Your task to perform on an android device: turn off notifications in google photos Image 0: 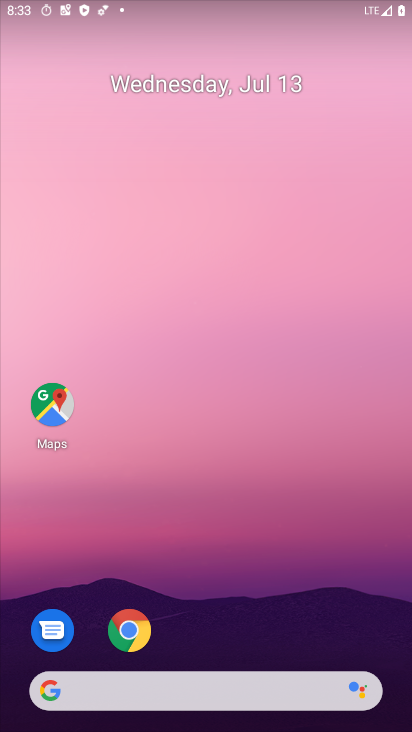
Step 0: drag from (381, 590) to (356, 183)
Your task to perform on an android device: turn off notifications in google photos Image 1: 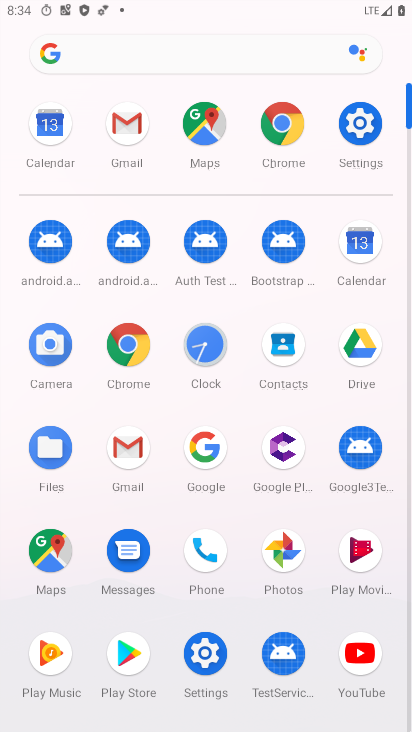
Step 1: click (300, 549)
Your task to perform on an android device: turn off notifications in google photos Image 2: 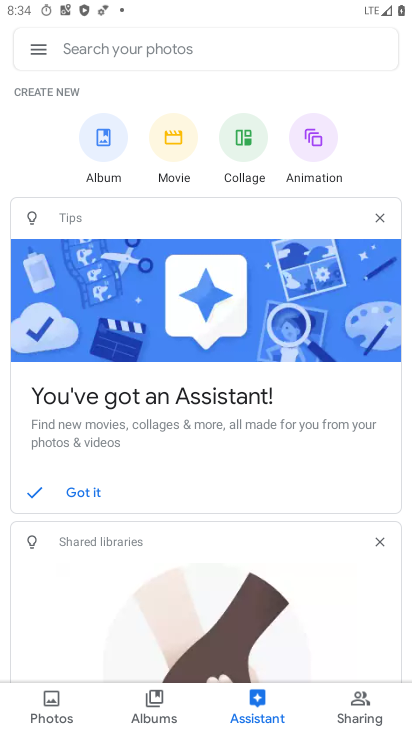
Step 2: click (35, 44)
Your task to perform on an android device: turn off notifications in google photos Image 3: 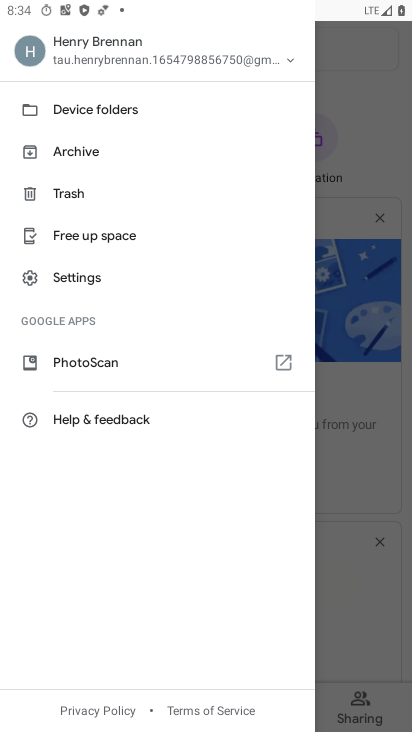
Step 3: click (100, 274)
Your task to perform on an android device: turn off notifications in google photos Image 4: 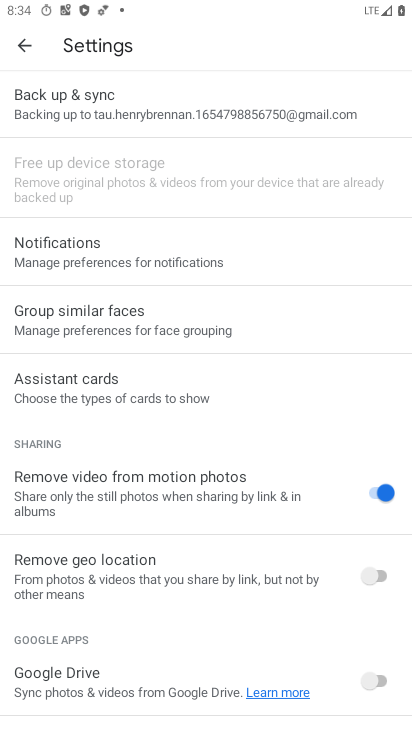
Step 4: click (200, 251)
Your task to perform on an android device: turn off notifications in google photos Image 5: 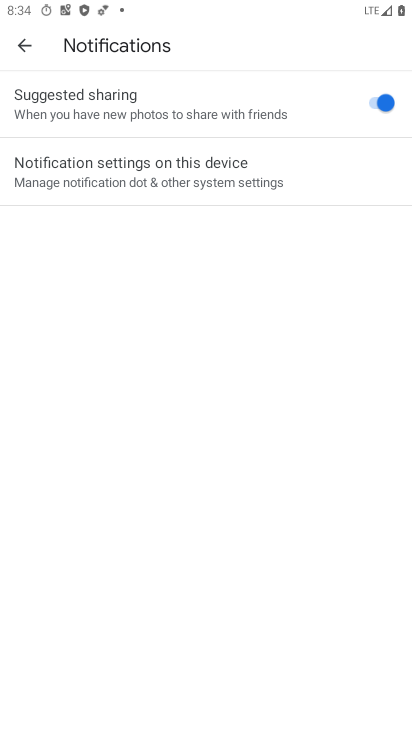
Step 5: click (383, 102)
Your task to perform on an android device: turn off notifications in google photos Image 6: 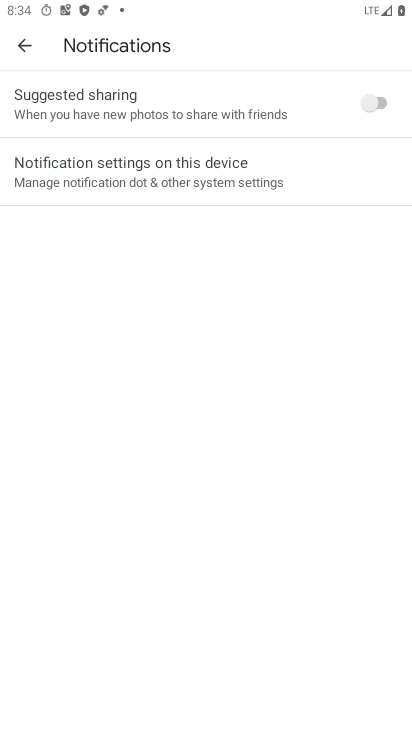
Step 6: task complete